Your task to perform on an android device: What's on my calendar today? Image 0: 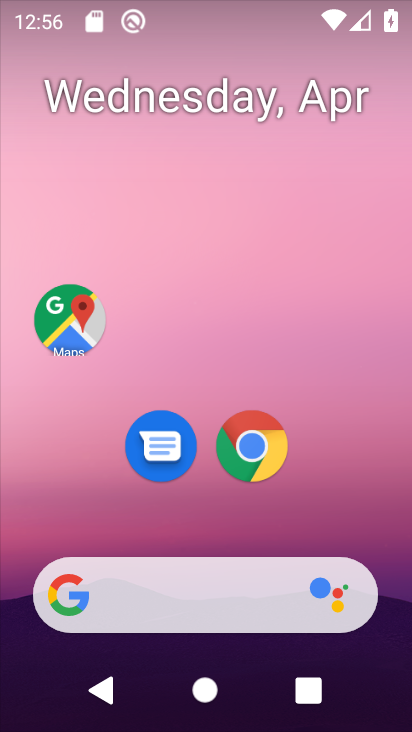
Step 0: drag from (219, 193) to (219, 61)
Your task to perform on an android device: What's on my calendar today? Image 1: 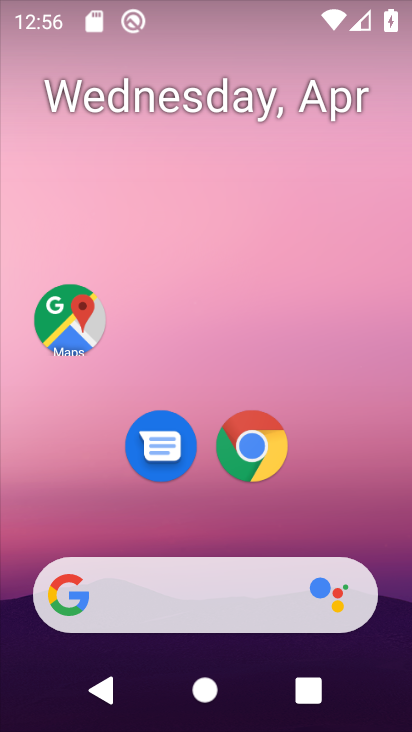
Step 1: drag from (202, 495) to (214, 97)
Your task to perform on an android device: What's on my calendar today? Image 2: 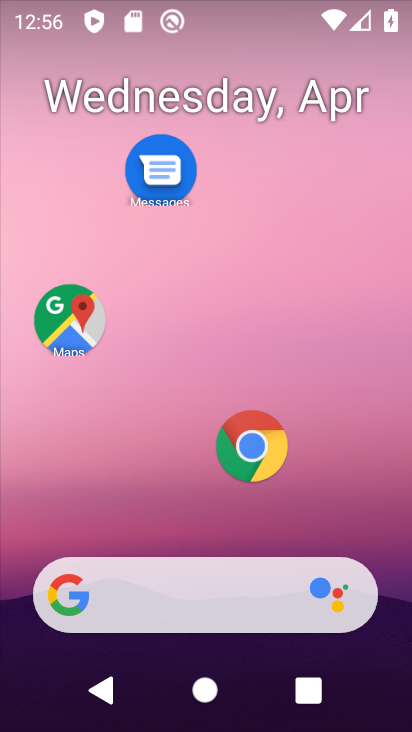
Step 2: drag from (305, 472) to (304, 0)
Your task to perform on an android device: What's on my calendar today? Image 3: 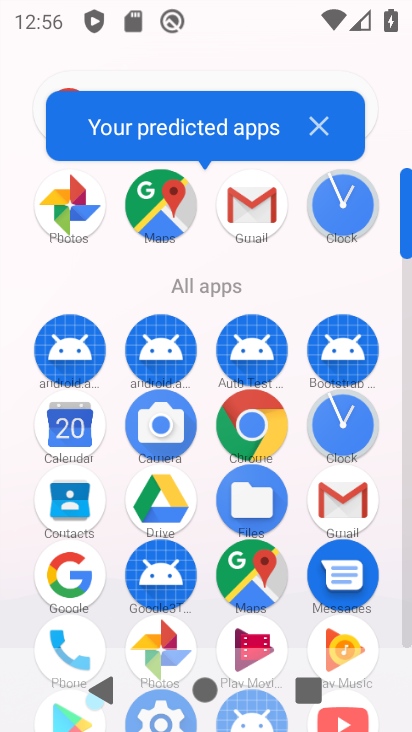
Step 3: click (71, 420)
Your task to perform on an android device: What's on my calendar today? Image 4: 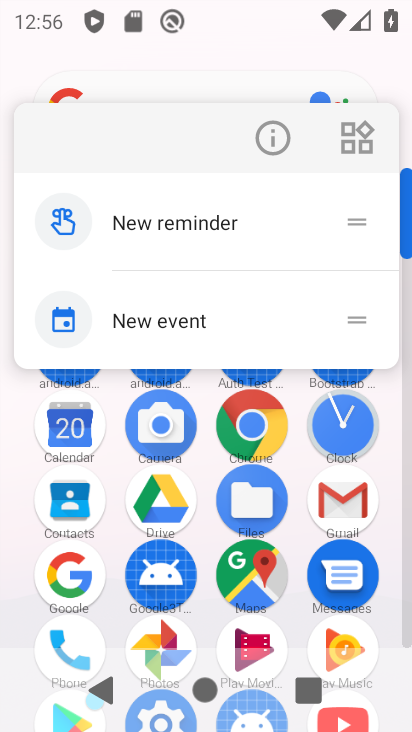
Step 4: click (71, 420)
Your task to perform on an android device: What's on my calendar today? Image 5: 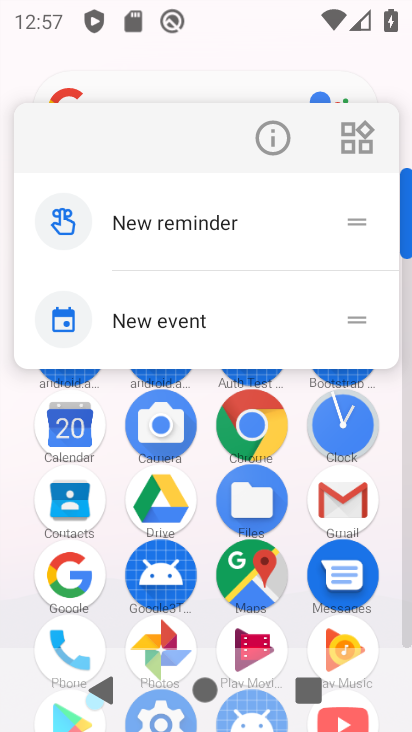
Step 5: click (68, 428)
Your task to perform on an android device: What's on my calendar today? Image 6: 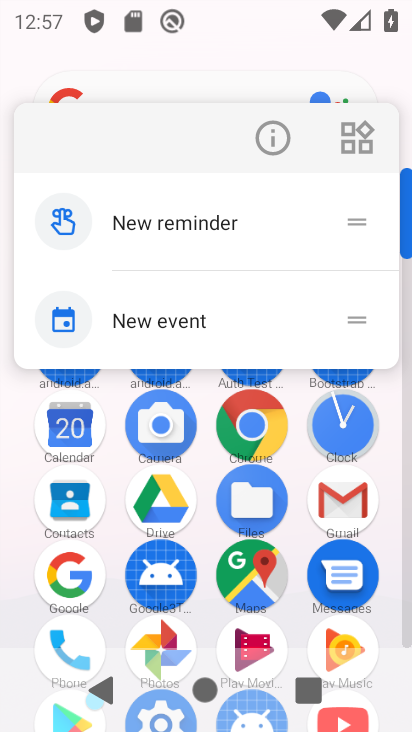
Step 6: click (67, 424)
Your task to perform on an android device: What's on my calendar today? Image 7: 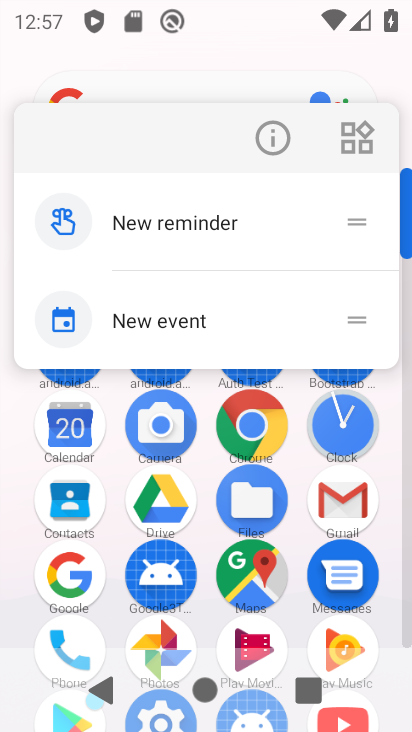
Step 7: click (67, 432)
Your task to perform on an android device: What's on my calendar today? Image 8: 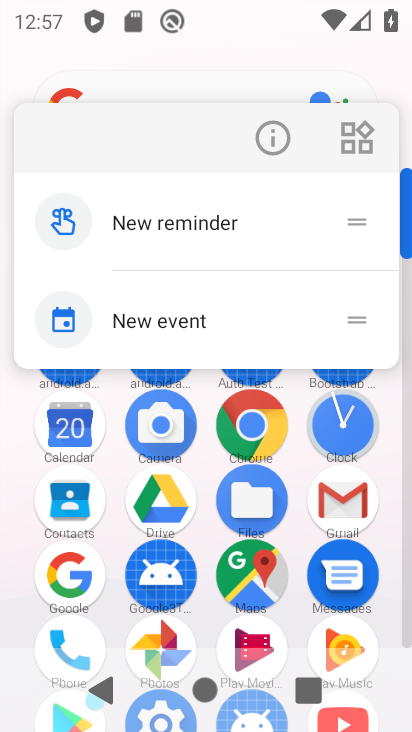
Step 8: click (12, 433)
Your task to perform on an android device: What's on my calendar today? Image 9: 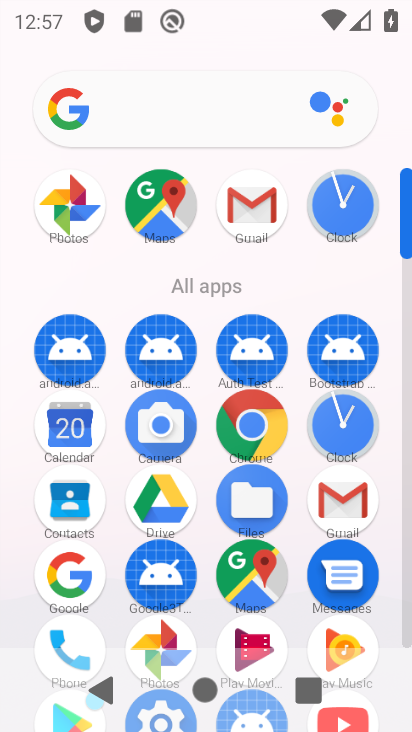
Step 9: click (68, 427)
Your task to perform on an android device: What's on my calendar today? Image 10: 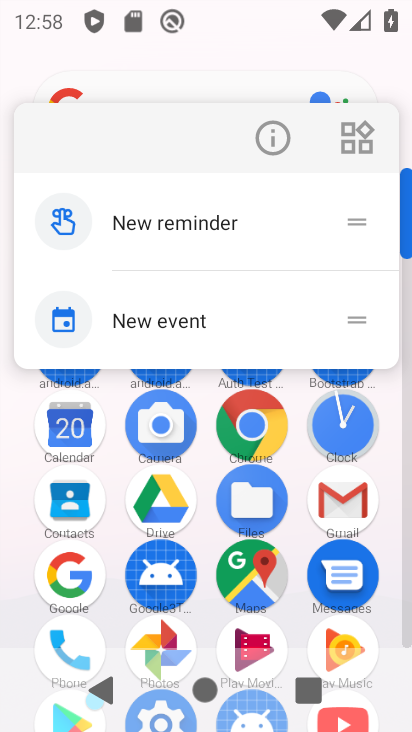
Step 10: click (17, 440)
Your task to perform on an android device: What's on my calendar today? Image 11: 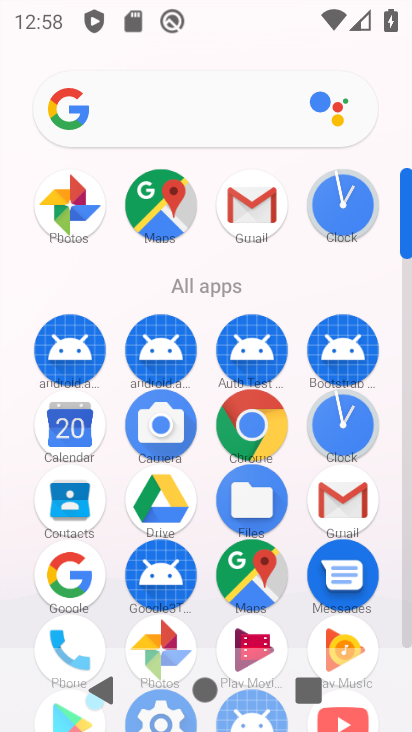
Step 11: click (15, 449)
Your task to perform on an android device: What's on my calendar today? Image 12: 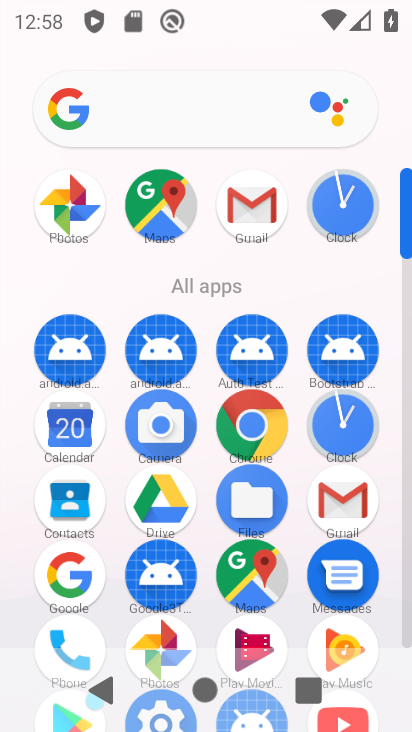
Step 12: click (63, 428)
Your task to perform on an android device: What's on my calendar today? Image 13: 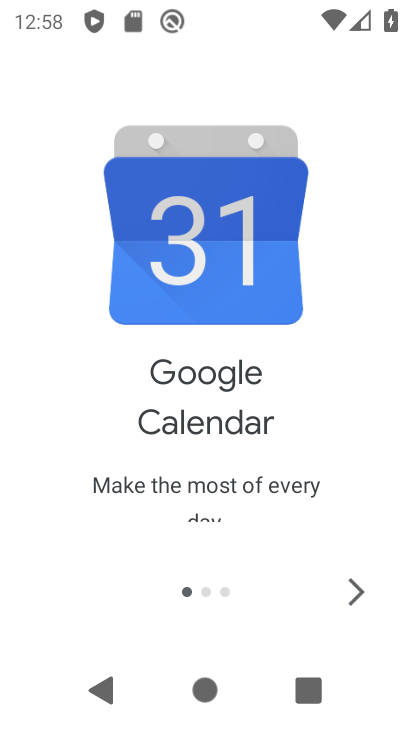
Step 13: click (353, 583)
Your task to perform on an android device: What's on my calendar today? Image 14: 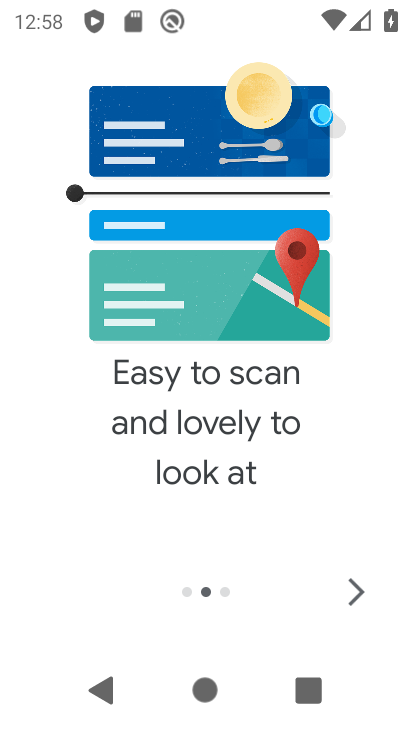
Step 14: click (353, 583)
Your task to perform on an android device: What's on my calendar today? Image 15: 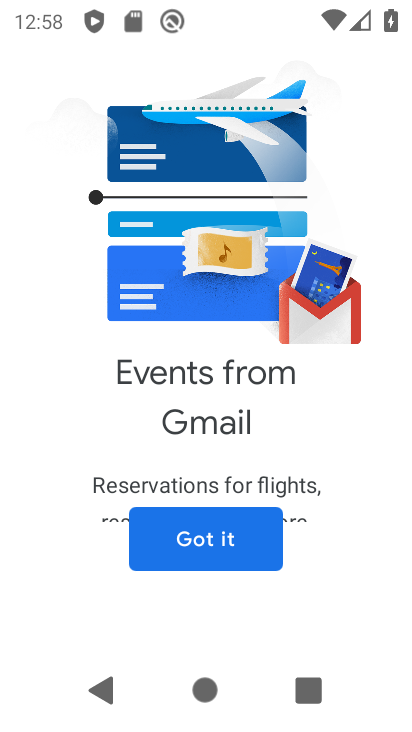
Step 15: click (207, 539)
Your task to perform on an android device: What's on my calendar today? Image 16: 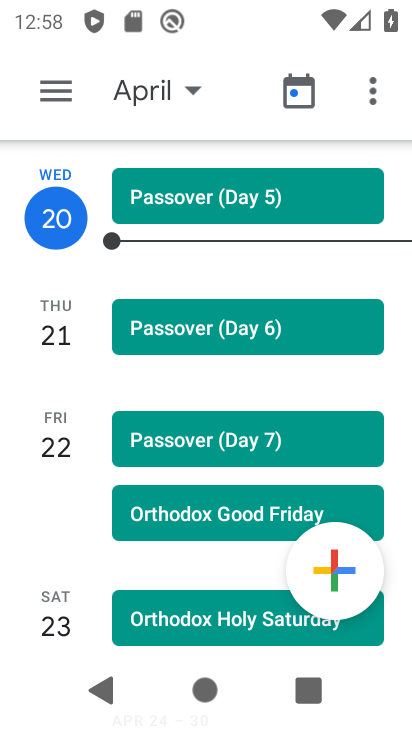
Step 16: click (67, 254)
Your task to perform on an android device: What's on my calendar today? Image 17: 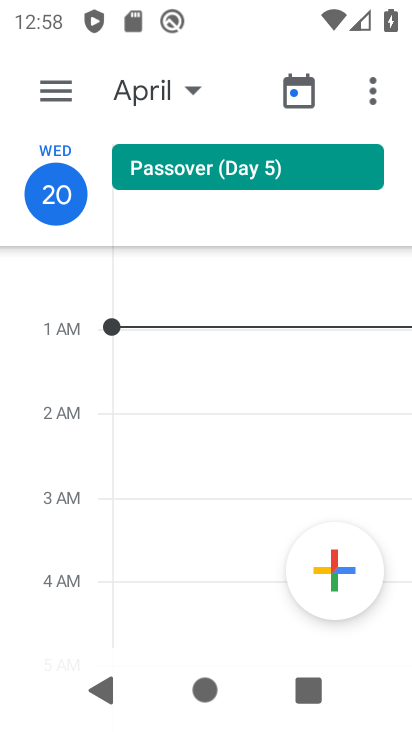
Step 17: task complete